Your task to perform on an android device: Go to sound settings Image 0: 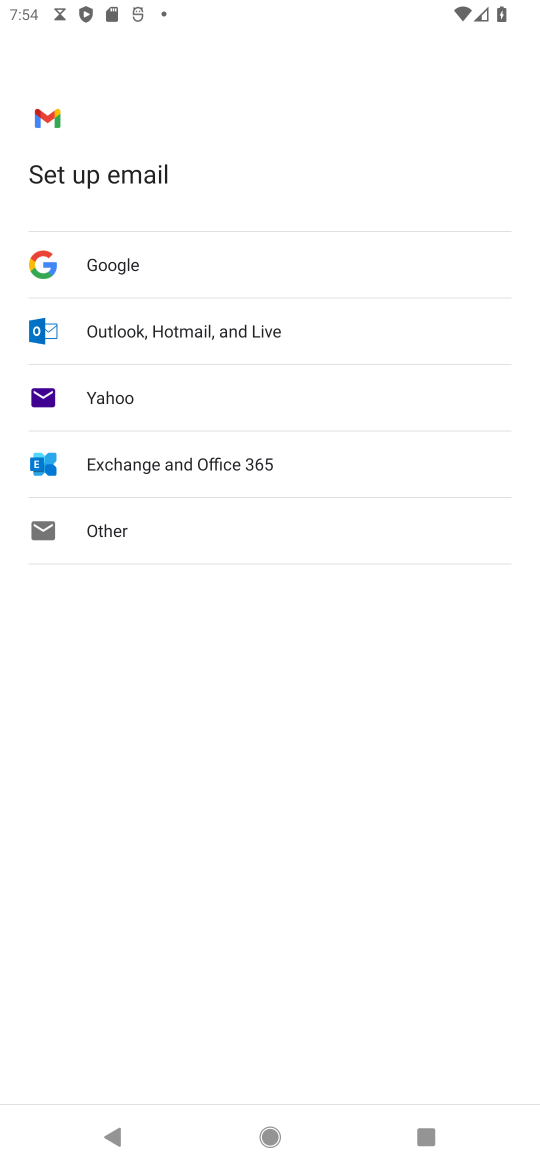
Step 0: press home button
Your task to perform on an android device: Go to sound settings Image 1: 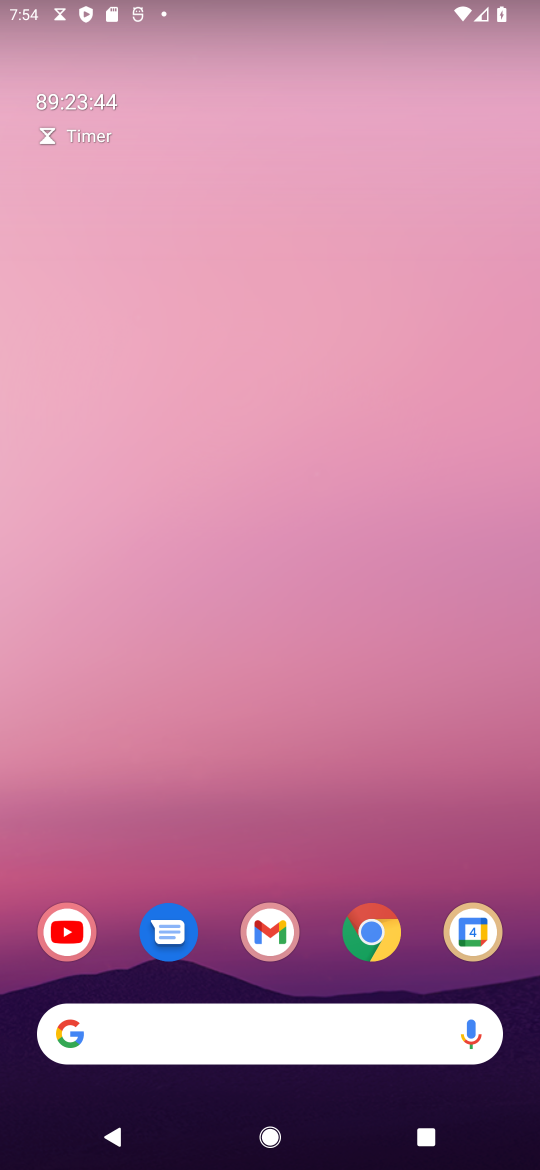
Step 1: drag from (283, 802) to (228, 24)
Your task to perform on an android device: Go to sound settings Image 2: 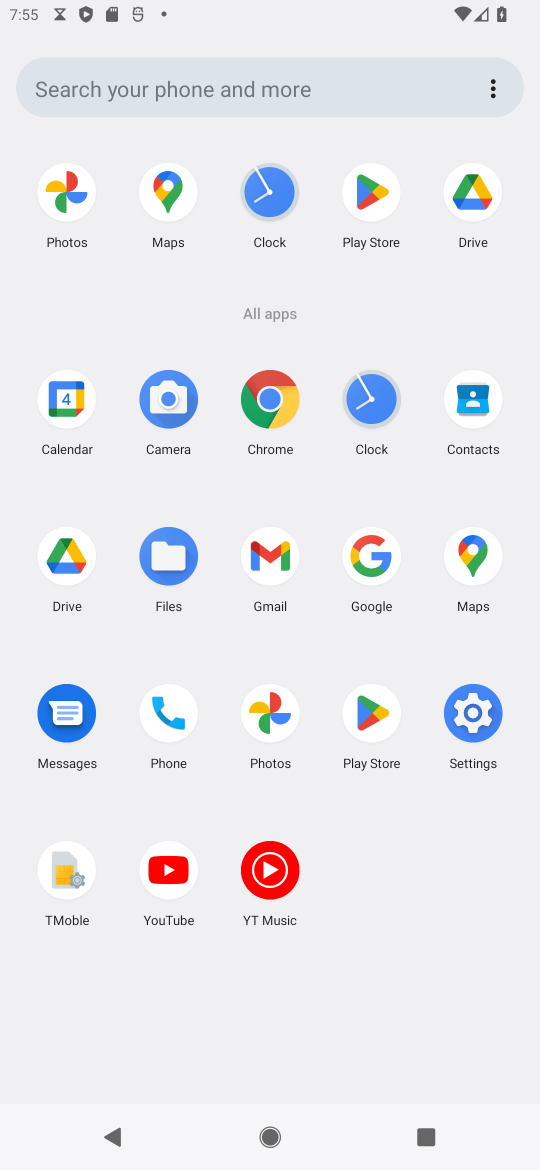
Step 2: click (472, 710)
Your task to perform on an android device: Go to sound settings Image 3: 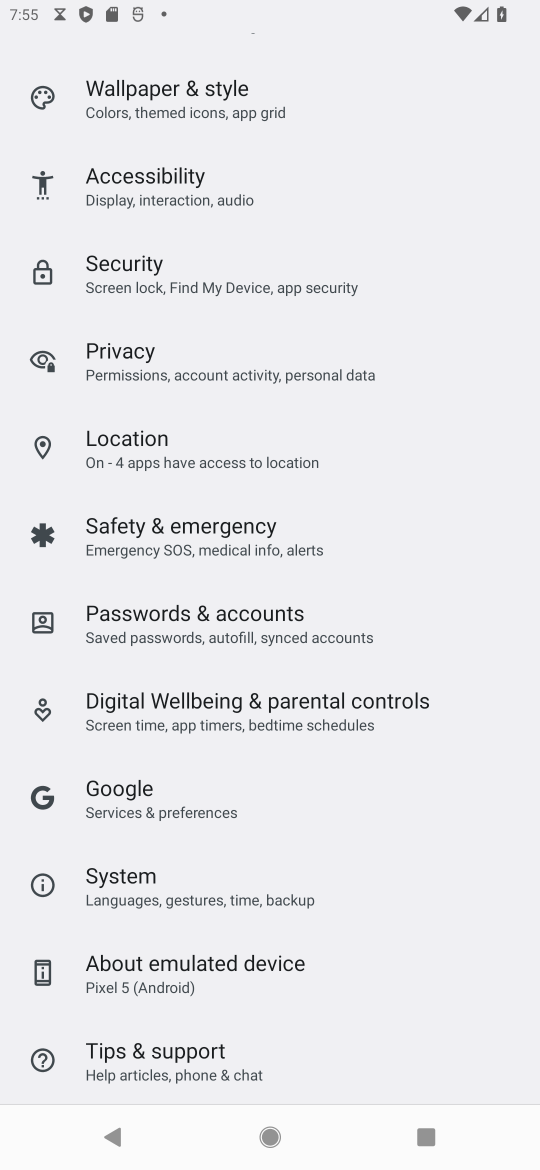
Step 3: drag from (238, 259) to (300, 644)
Your task to perform on an android device: Go to sound settings Image 4: 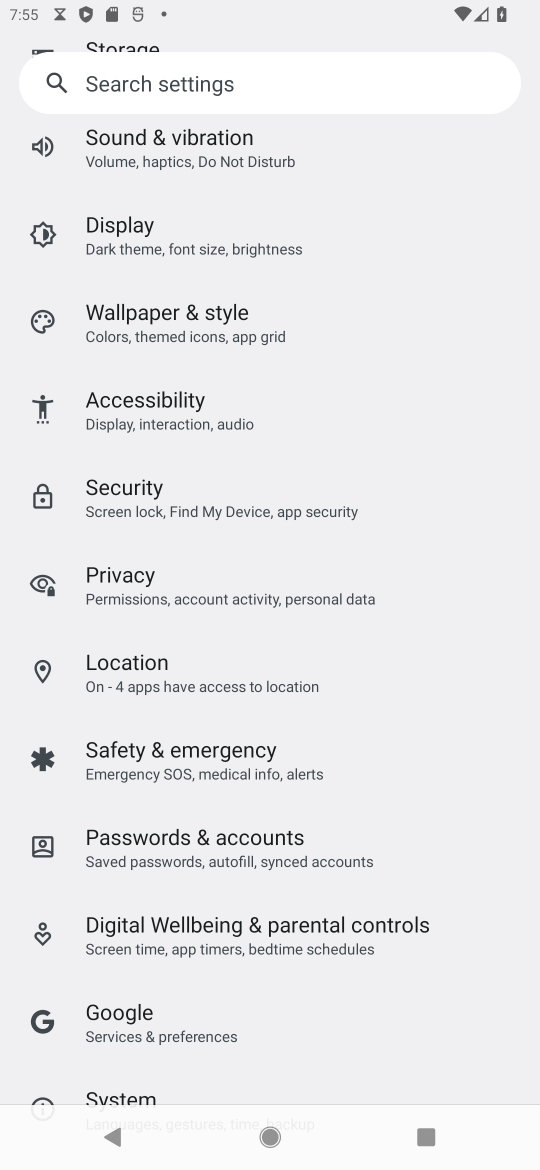
Step 4: click (172, 165)
Your task to perform on an android device: Go to sound settings Image 5: 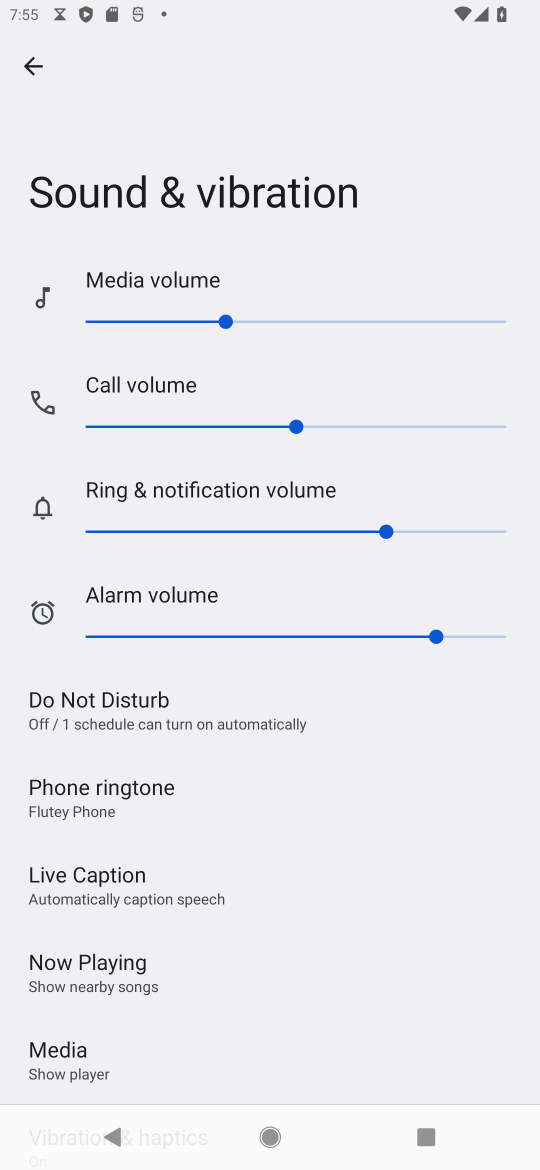
Step 5: task complete